Your task to perform on an android device: Go to Reddit.com Image 0: 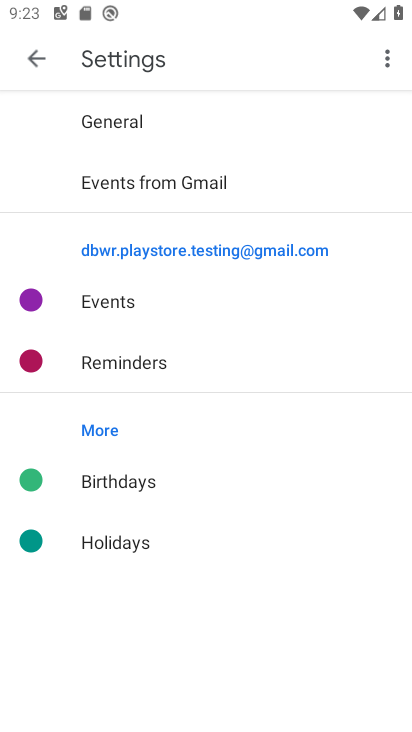
Step 0: press home button
Your task to perform on an android device: Go to Reddit.com Image 1: 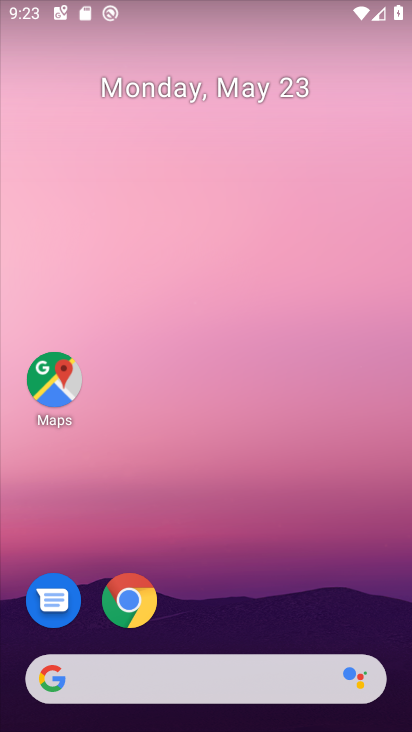
Step 1: drag from (222, 722) to (218, 139)
Your task to perform on an android device: Go to Reddit.com Image 2: 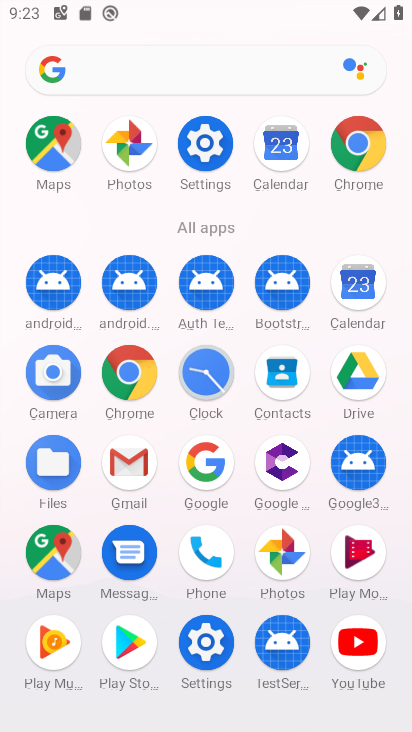
Step 2: click (122, 375)
Your task to perform on an android device: Go to Reddit.com Image 3: 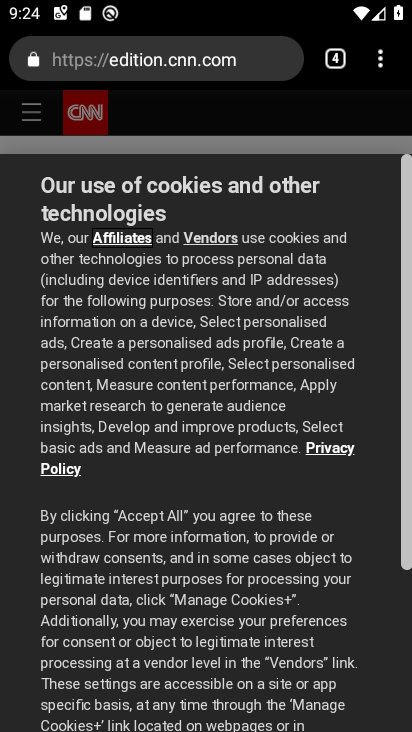
Step 3: click (382, 69)
Your task to perform on an android device: Go to Reddit.com Image 4: 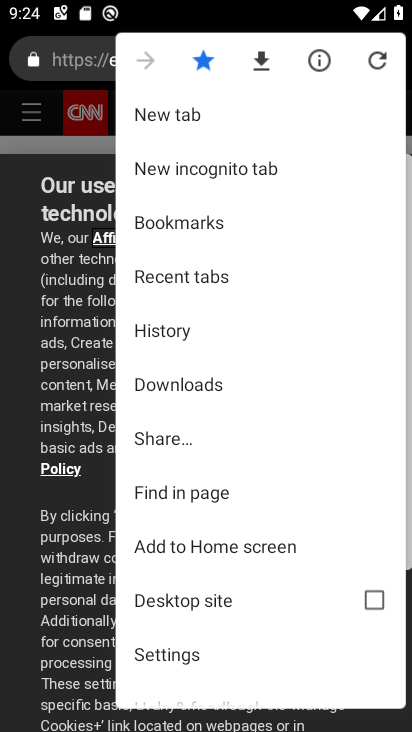
Step 4: click (170, 111)
Your task to perform on an android device: Go to Reddit.com Image 5: 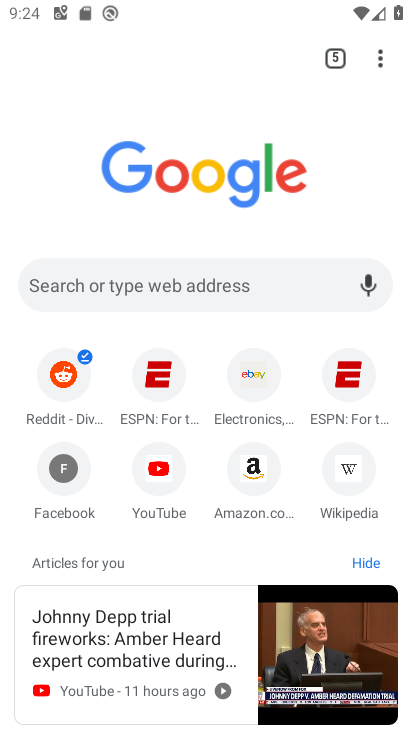
Step 5: click (54, 378)
Your task to perform on an android device: Go to Reddit.com Image 6: 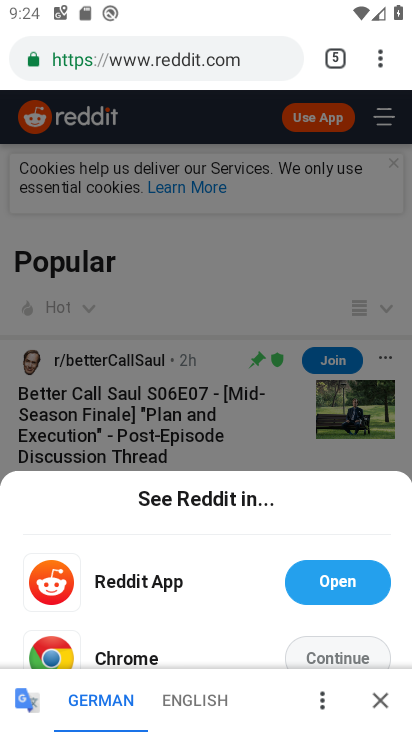
Step 6: task complete